Your task to perform on an android device: open chrome and create a bookmark for the current page Image 0: 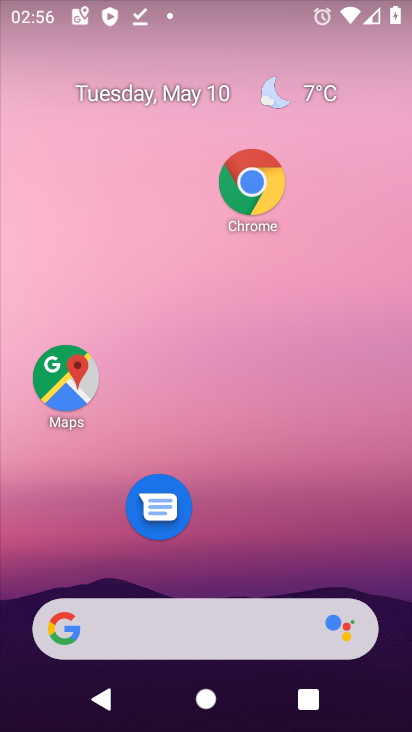
Step 0: click (266, 199)
Your task to perform on an android device: open chrome and create a bookmark for the current page Image 1: 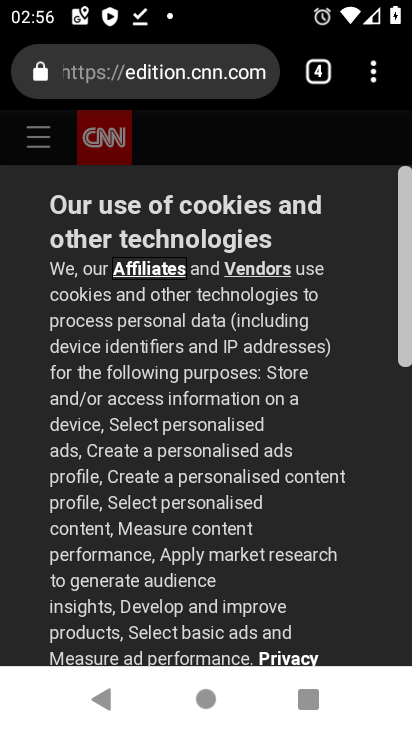
Step 1: click (375, 64)
Your task to perform on an android device: open chrome and create a bookmark for the current page Image 2: 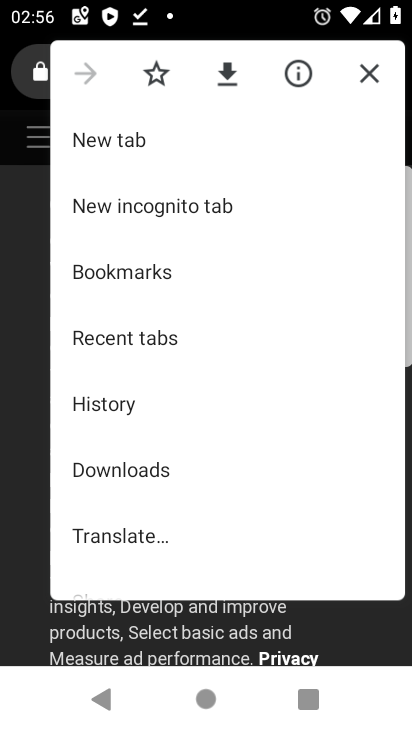
Step 2: click (162, 83)
Your task to perform on an android device: open chrome and create a bookmark for the current page Image 3: 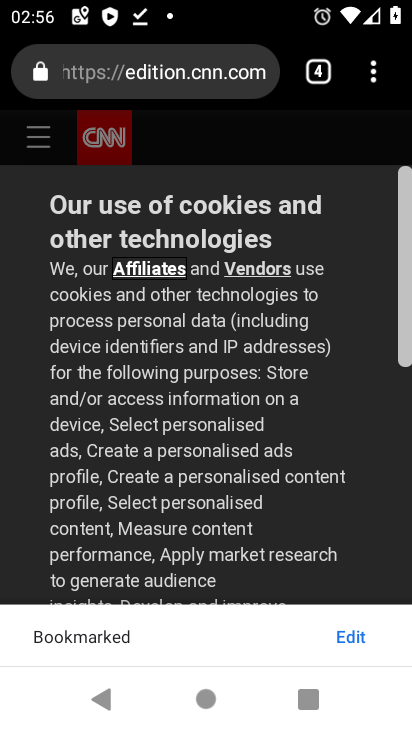
Step 3: task complete